Your task to perform on an android device: Search for pizza restaurants on Maps Image 0: 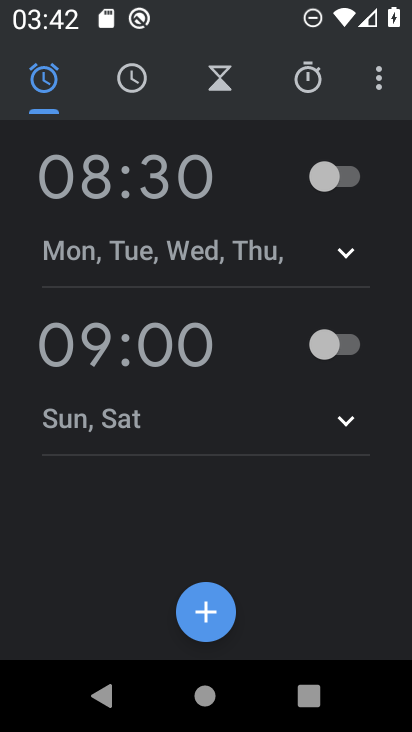
Step 0: press home button
Your task to perform on an android device: Search for pizza restaurants on Maps Image 1: 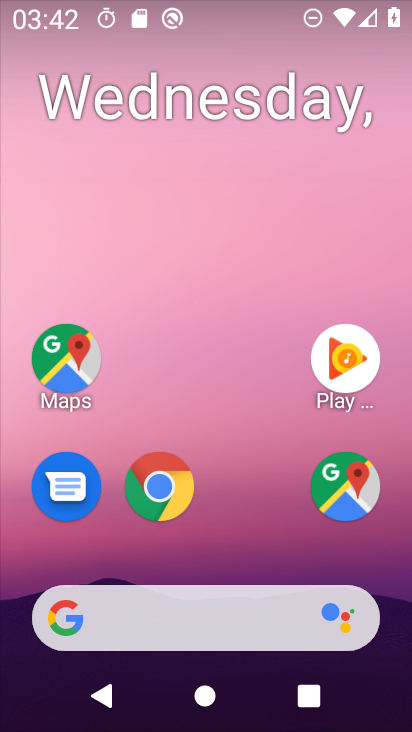
Step 1: drag from (247, 548) to (266, 98)
Your task to perform on an android device: Search for pizza restaurants on Maps Image 2: 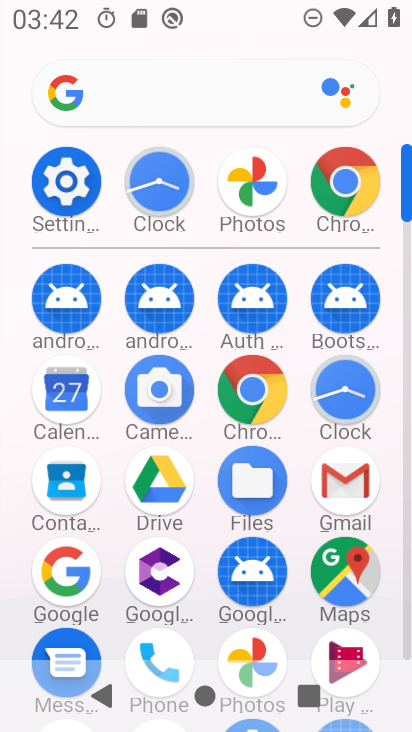
Step 2: click (344, 572)
Your task to perform on an android device: Search for pizza restaurants on Maps Image 3: 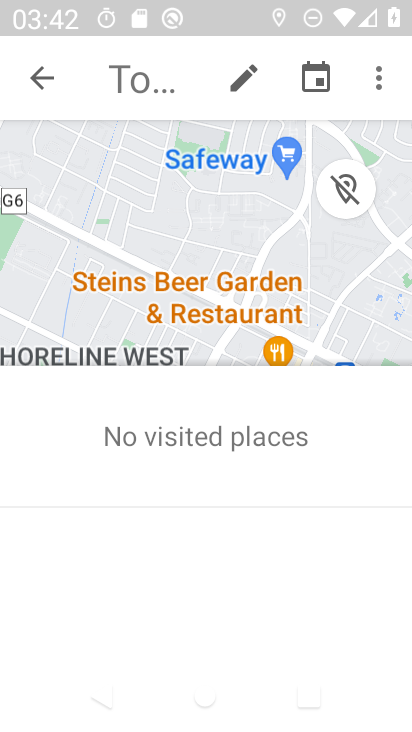
Step 3: press back button
Your task to perform on an android device: Search for pizza restaurants on Maps Image 4: 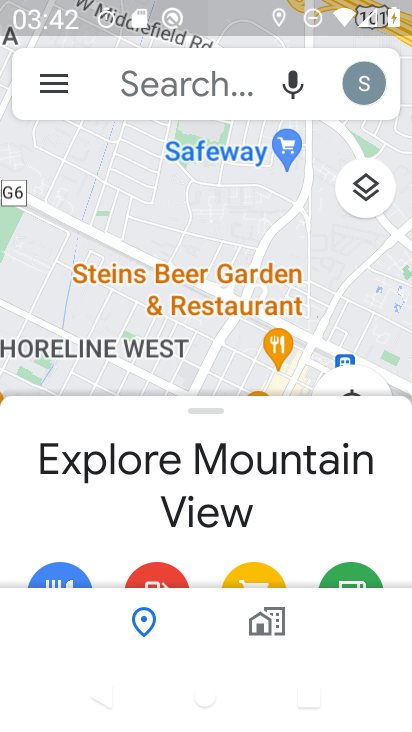
Step 4: click (216, 91)
Your task to perform on an android device: Search for pizza restaurants on Maps Image 5: 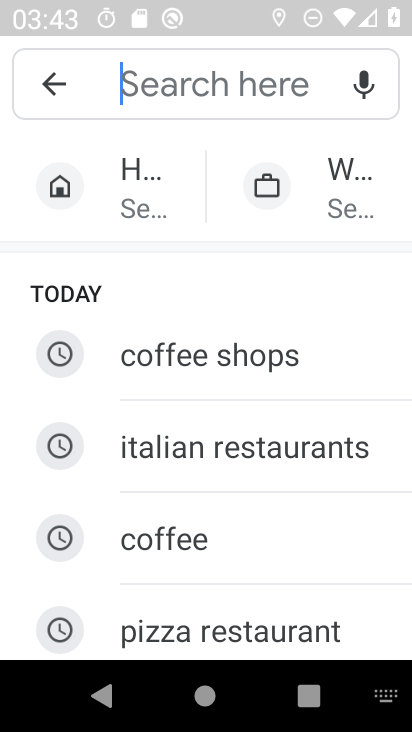
Step 5: type "pizza restaurants"
Your task to perform on an android device: Search for pizza restaurants on Maps Image 6: 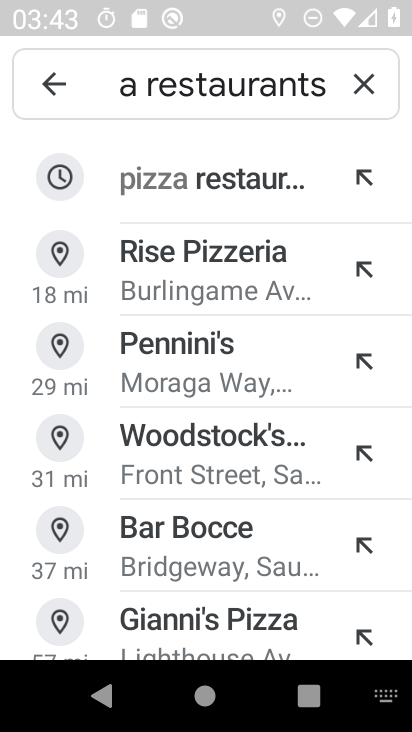
Step 6: click (333, 197)
Your task to perform on an android device: Search for pizza restaurants on Maps Image 7: 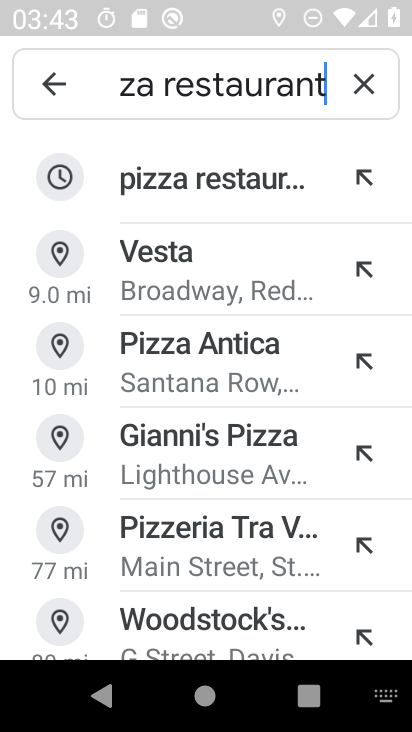
Step 7: click (284, 185)
Your task to perform on an android device: Search for pizza restaurants on Maps Image 8: 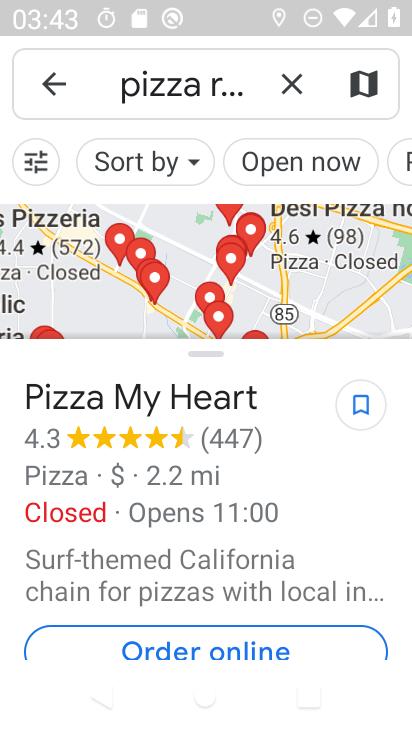
Step 8: task complete